Your task to perform on an android device: Open eBay Image 0: 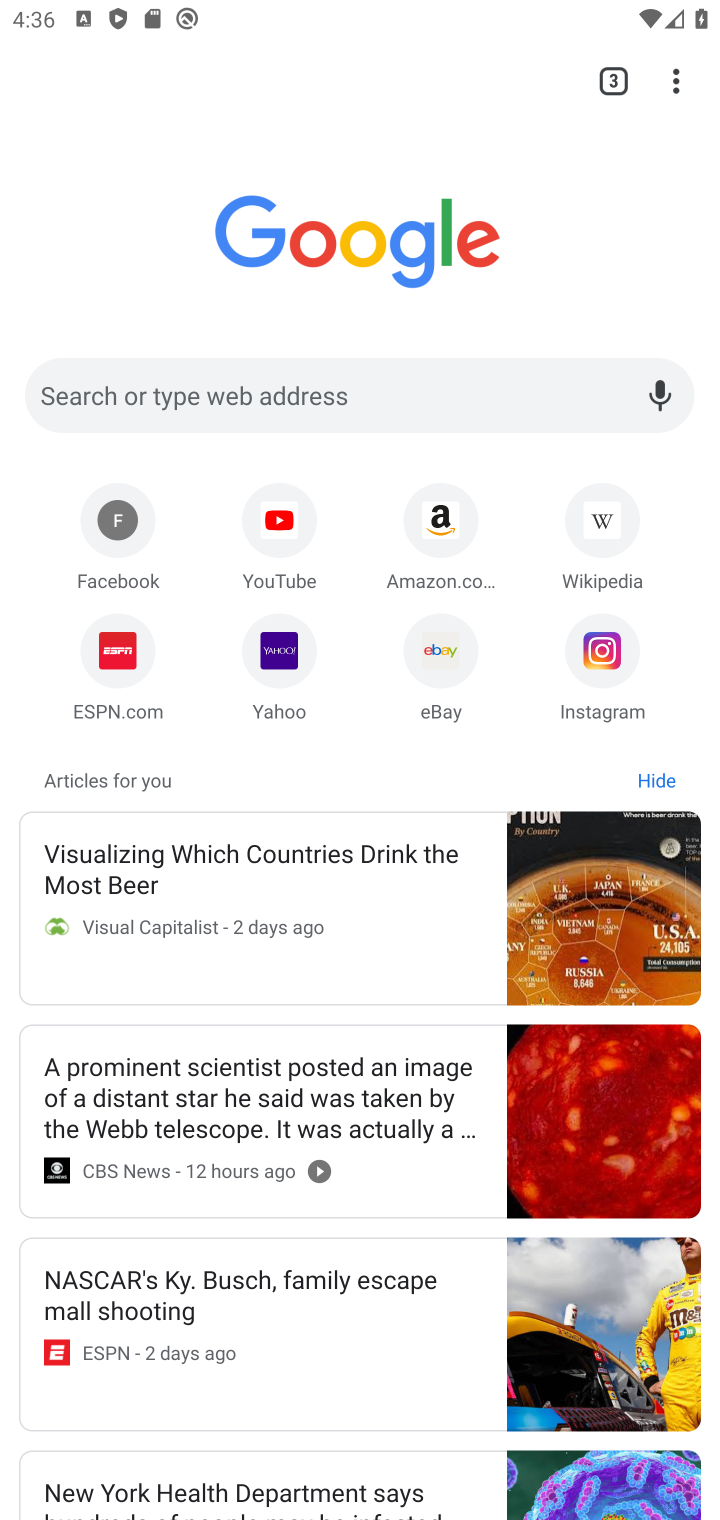
Step 0: click (439, 647)
Your task to perform on an android device: Open eBay Image 1: 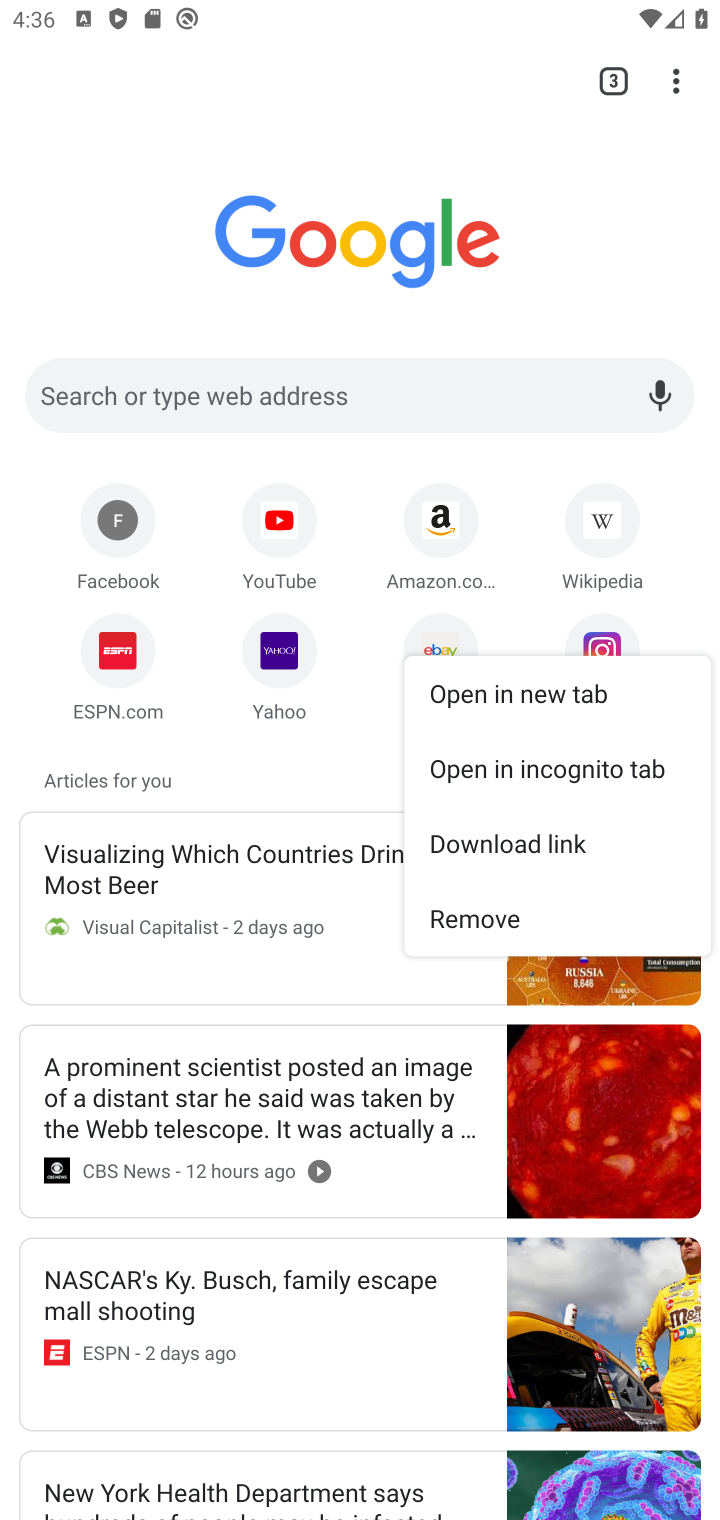
Step 1: click (437, 632)
Your task to perform on an android device: Open eBay Image 2: 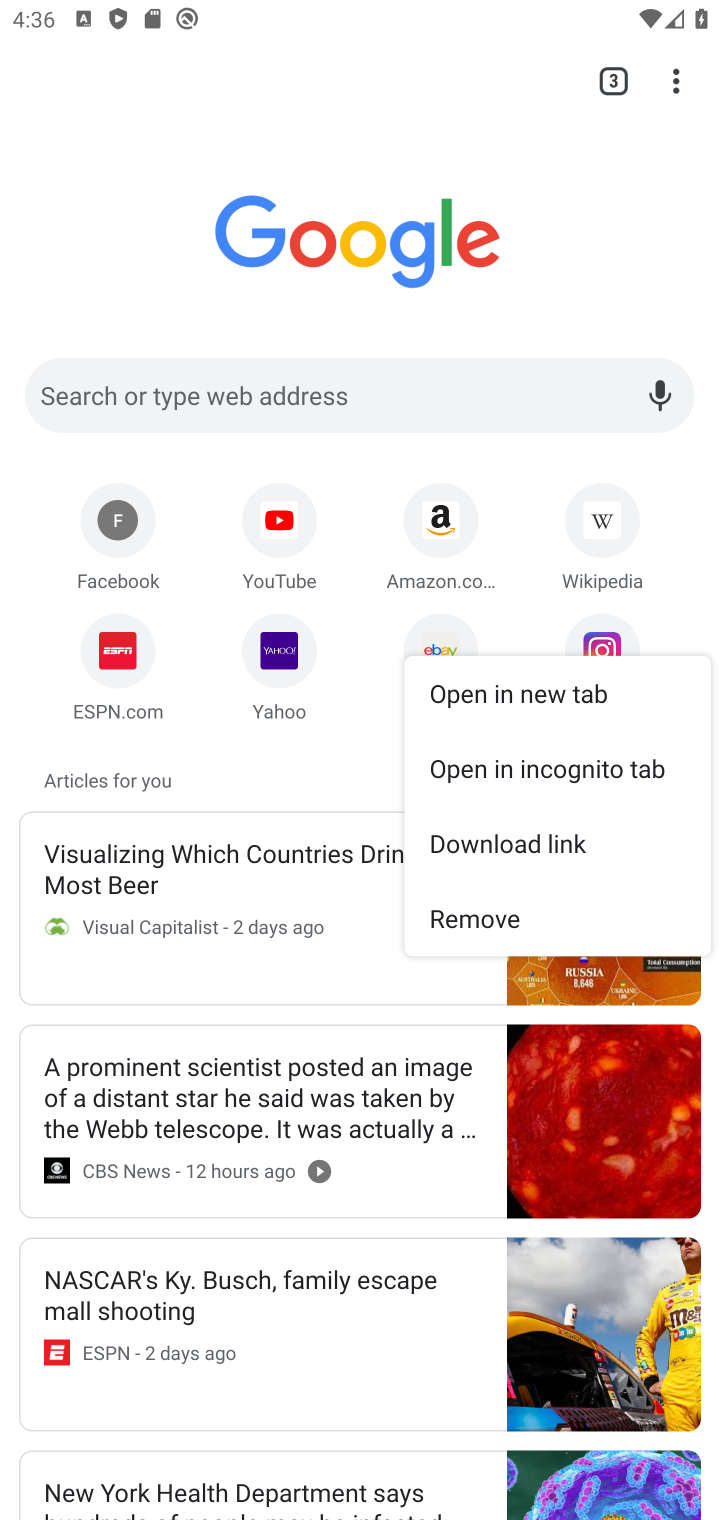
Step 2: click (437, 632)
Your task to perform on an android device: Open eBay Image 3: 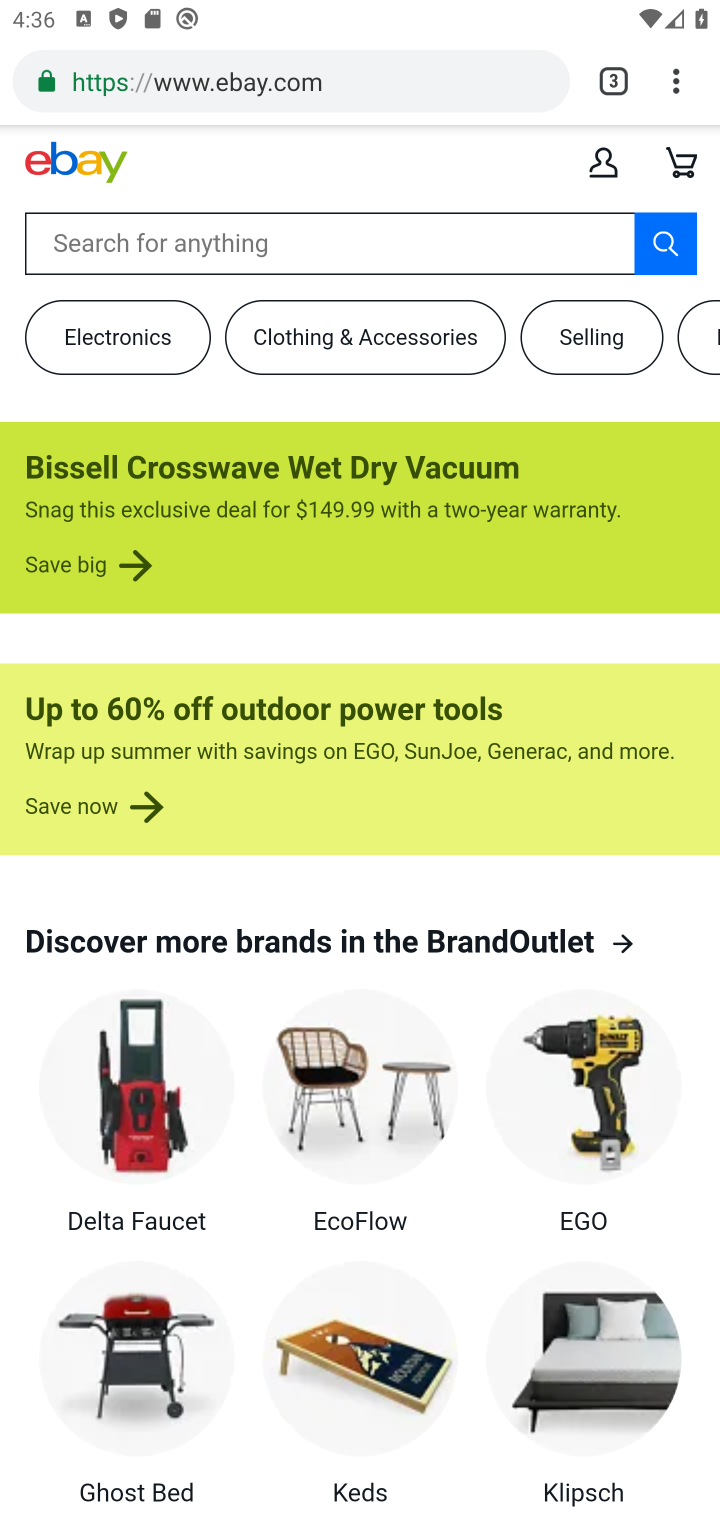
Step 3: task complete